Your task to perform on an android device: Open internet settings Image 0: 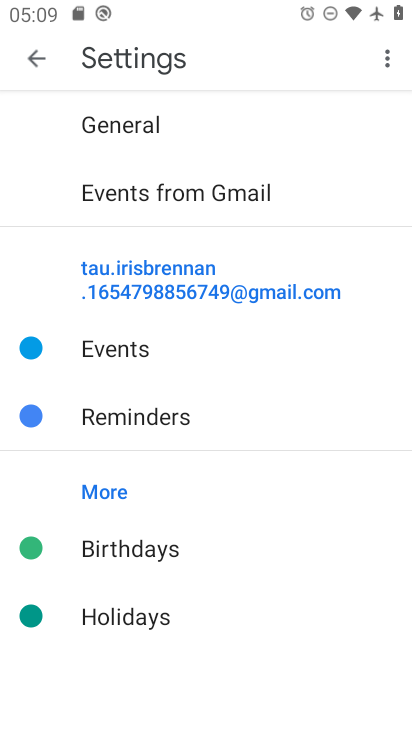
Step 0: press home button
Your task to perform on an android device: Open internet settings Image 1: 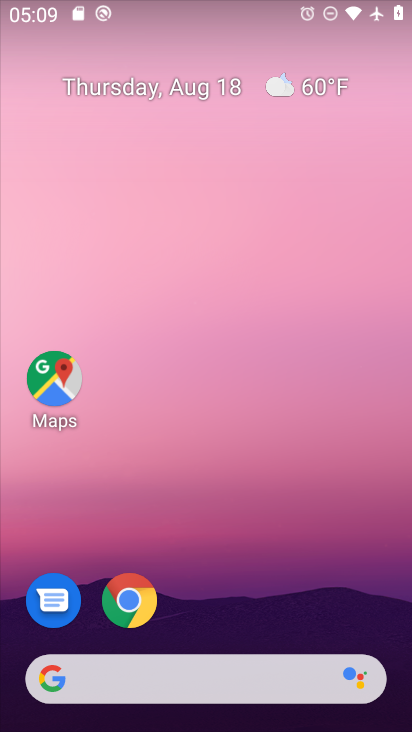
Step 1: drag from (249, 516) to (288, 11)
Your task to perform on an android device: Open internet settings Image 2: 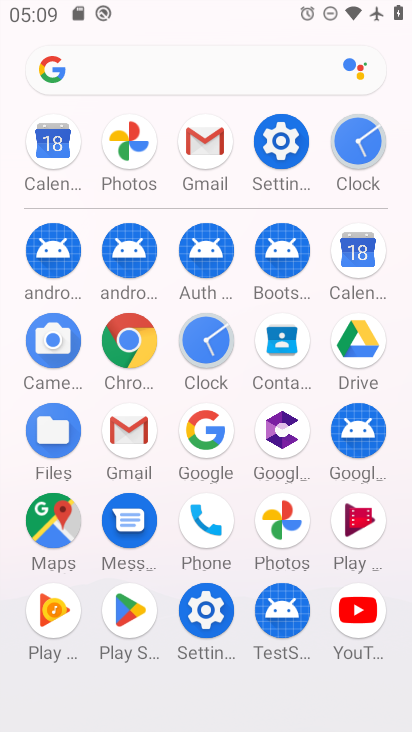
Step 2: click (196, 633)
Your task to perform on an android device: Open internet settings Image 3: 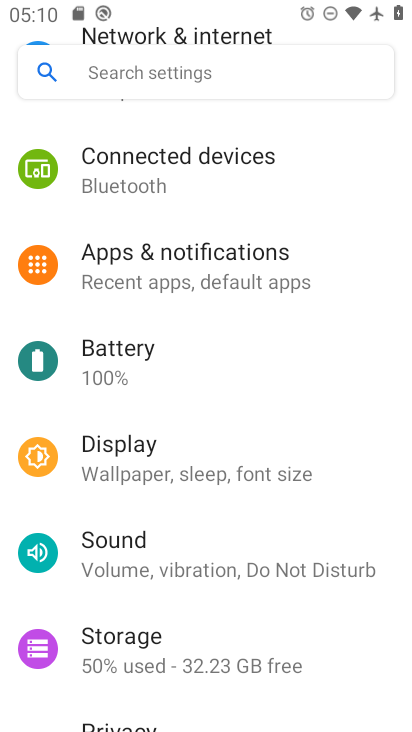
Step 3: drag from (221, 289) to (227, 704)
Your task to perform on an android device: Open internet settings Image 4: 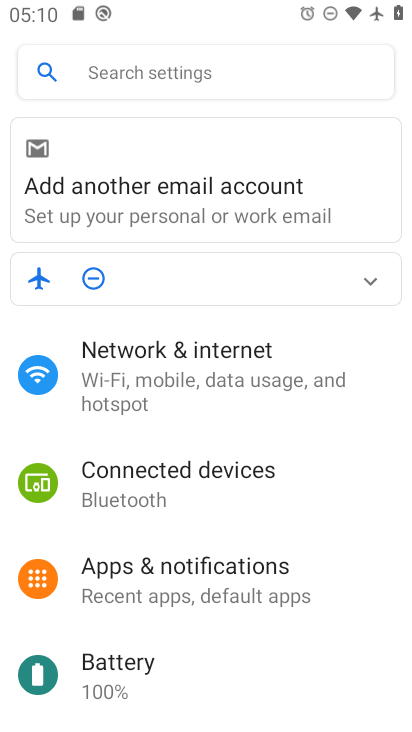
Step 4: click (154, 382)
Your task to perform on an android device: Open internet settings Image 5: 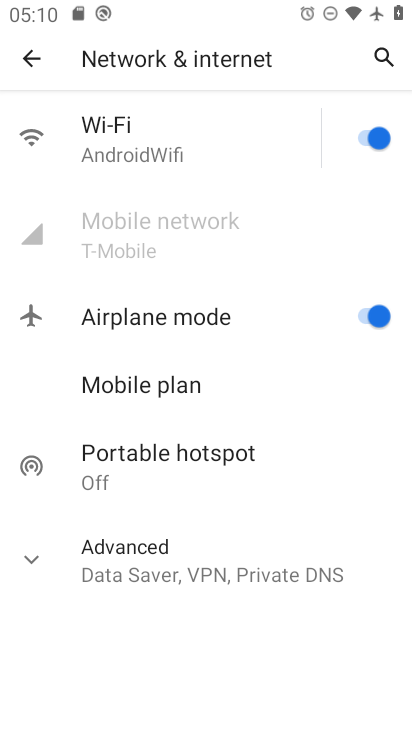
Step 5: click (110, 139)
Your task to perform on an android device: Open internet settings Image 6: 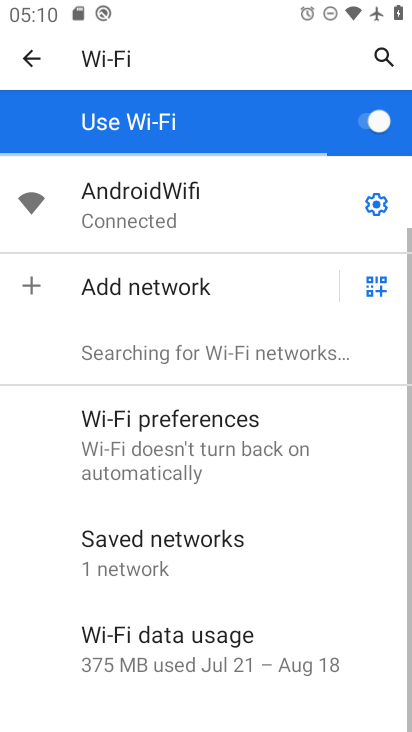
Step 6: click (131, 211)
Your task to perform on an android device: Open internet settings Image 7: 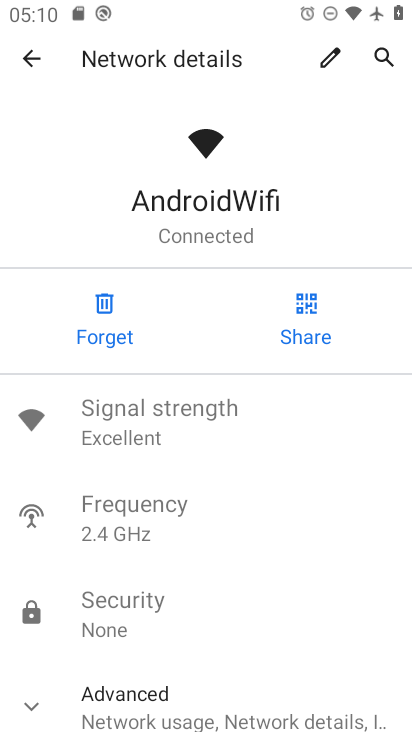
Step 7: task complete